Your task to perform on an android device: Open settings on Google Maps Image 0: 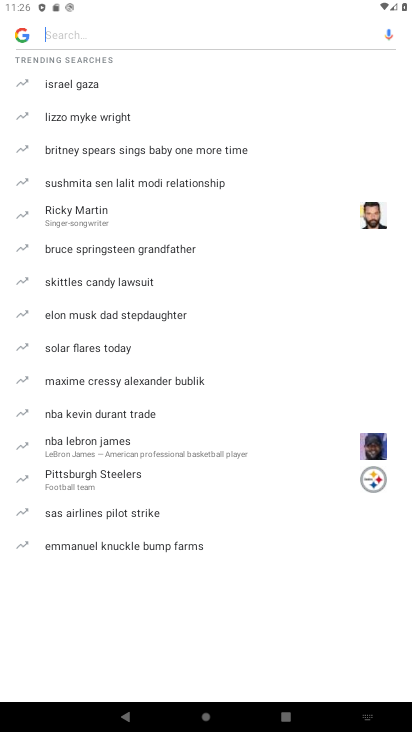
Step 0: press home button
Your task to perform on an android device: Open settings on Google Maps Image 1: 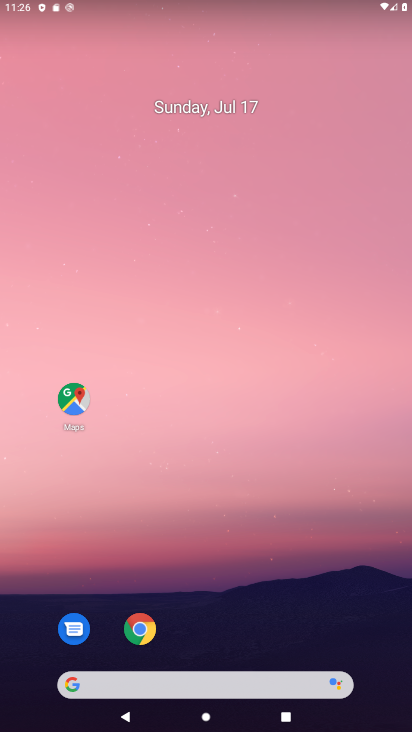
Step 1: click (71, 384)
Your task to perform on an android device: Open settings on Google Maps Image 2: 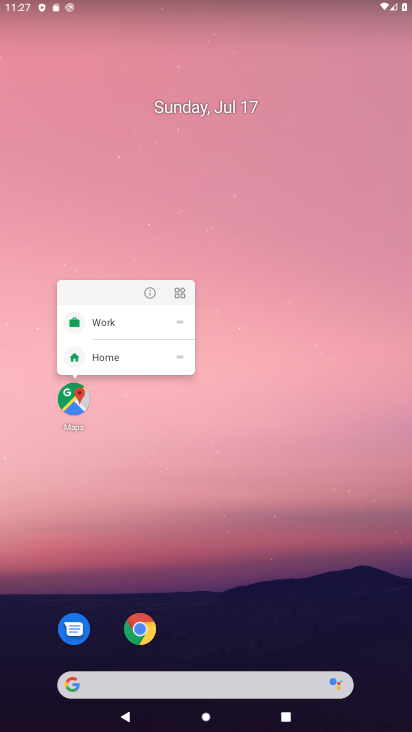
Step 2: click (71, 382)
Your task to perform on an android device: Open settings on Google Maps Image 3: 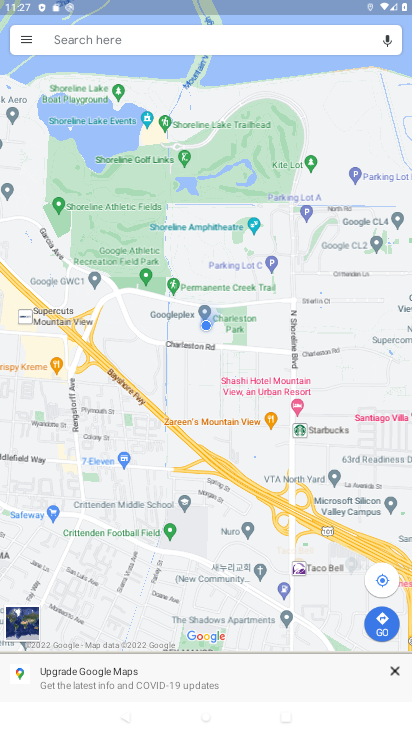
Step 3: click (16, 39)
Your task to perform on an android device: Open settings on Google Maps Image 4: 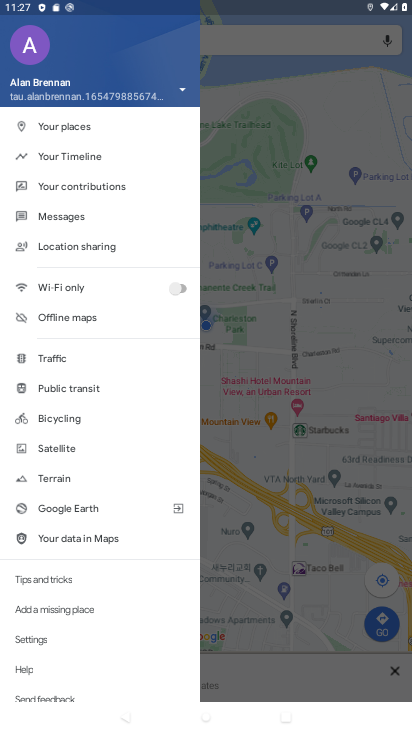
Step 4: drag from (28, 667) to (54, 549)
Your task to perform on an android device: Open settings on Google Maps Image 5: 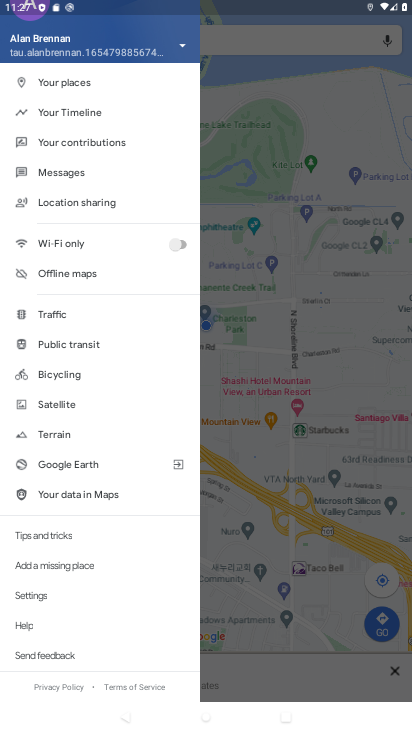
Step 5: click (40, 598)
Your task to perform on an android device: Open settings on Google Maps Image 6: 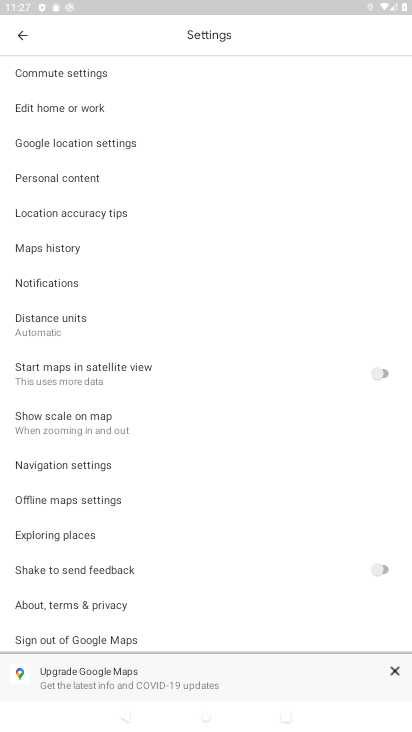
Step 6: task complete